Your task to perform on an android device: Open settings Image 0: 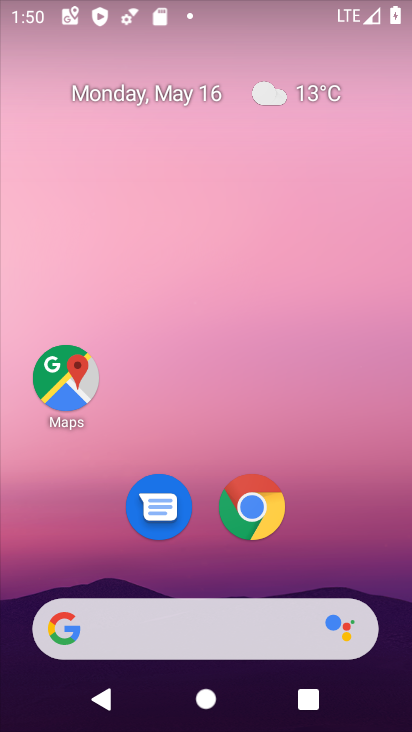
Step 0: drag from (327, 427) to (193, 7)
Your task to perform on an android device: Open settings Image 1: 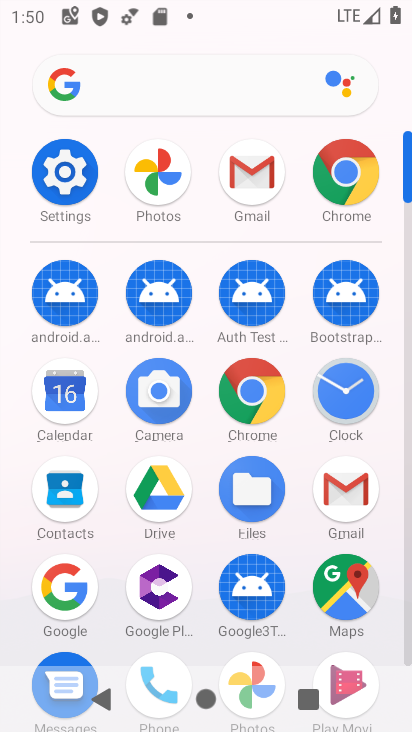
Step 1: click (60, 176)
Your task to perform on an android device: Open settings Image 2: 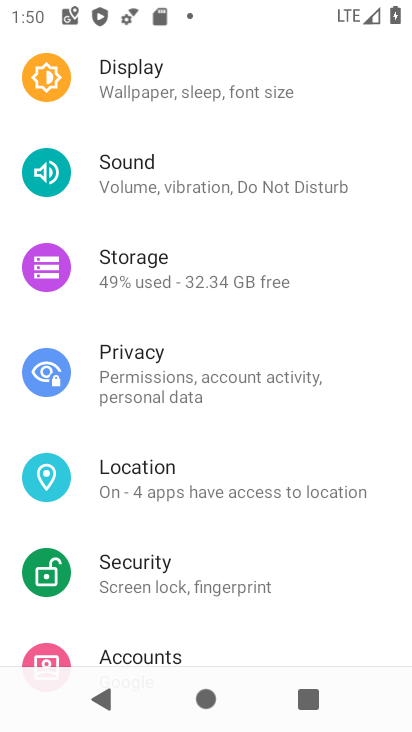
Step 2: task complete